Your task to perform on an android device: Open CNN.com Image 0: 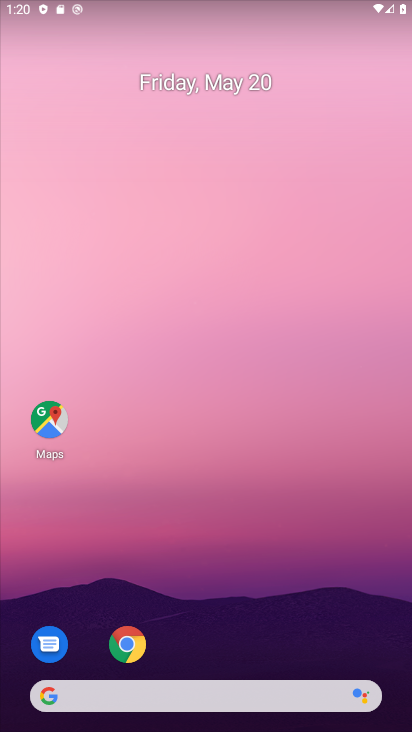
Step 0: click (113, 686)
Your task to perform on an android device: Open CNN.com Image 1: 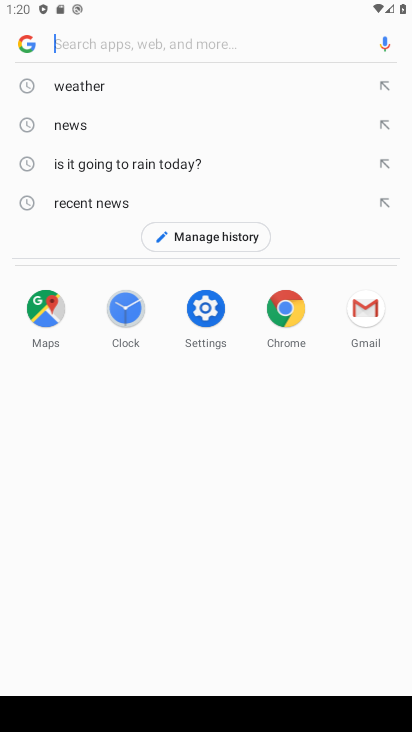
Step 1: type "cnn.com"
Your task to perform on an android device: Open CNN.com Image 2: 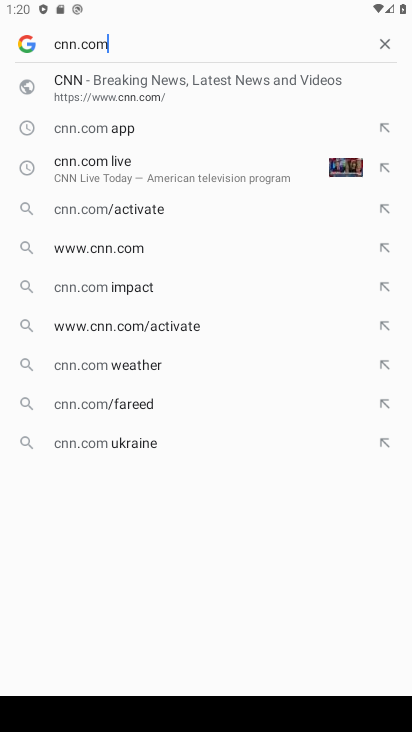
Step 2: click (75, 105)
Your task to perform on an android device: Open CNN.com Image 3: 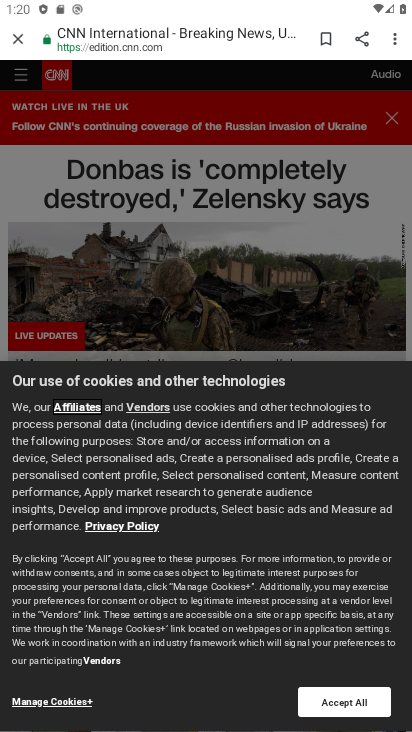
Step 3: task complete